Your task to perform on an android device: open chrome privacy settings Image 0: 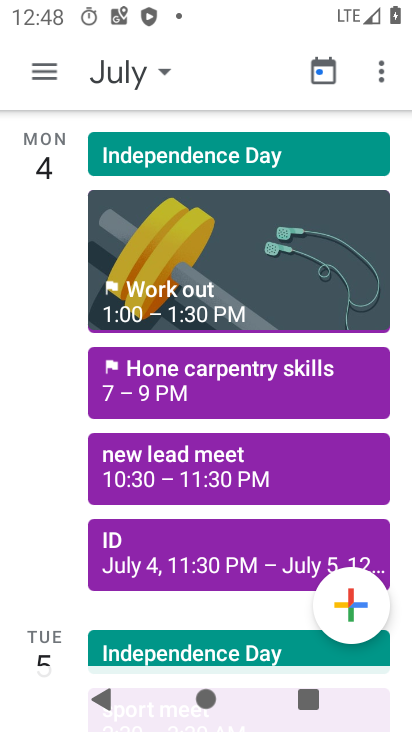
Step 0: press home button
Your task to perform on an android device: open chrome privacy settings Image 1: 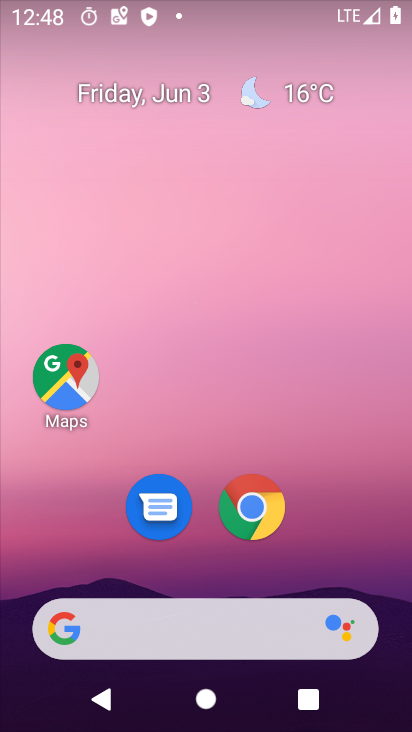
Step 1: drag from (400, 629) to (339, 82)
Your task to perform on an android device: open chrome privacy settings Image 2: 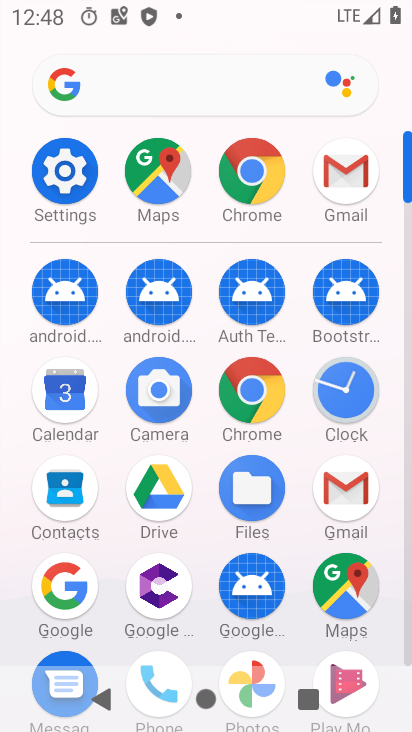
Step 2: click (255, 388)
Your task to perform on an android device: open chrome privacy settings Image 3: 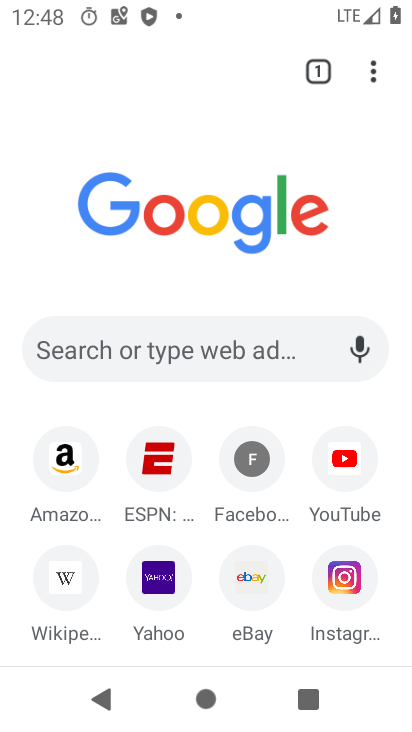
Step 3: click (373, 63)
Your task to perform on an android device: open chrome privacy settings Image 4: 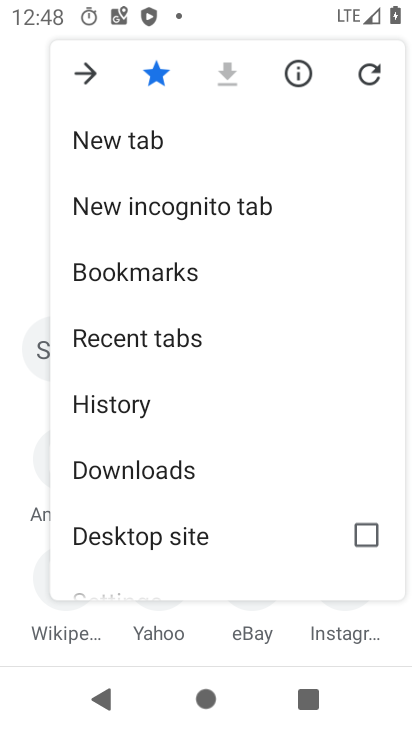
Step 4: drag from (150, 533) to (190, 185)
Your task to perform on an android device: open chrome privacy settings Image 5: 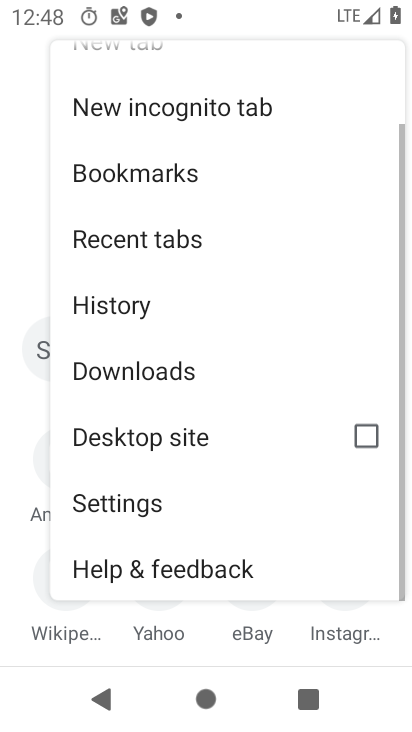
Step 5: click (163, 499)
Your task to perform on an android device: open chrome privacy settings Image 6: 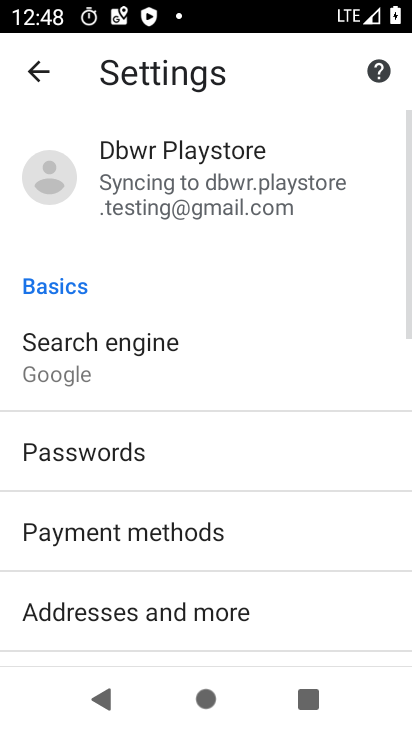
Step 6: drag from (193, 569) to (224, 185)
Your task to perform on an android device: open chrome privacy settings Image 7: 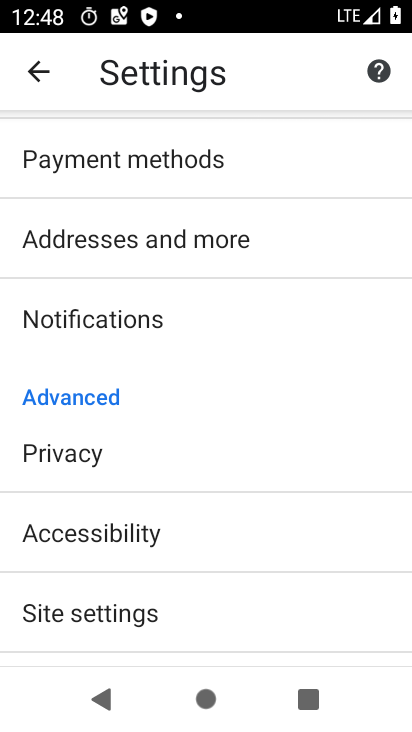
Step 7: click (119, 449)
Your task to perform on an android device: open chrome privacy settings Image 8: 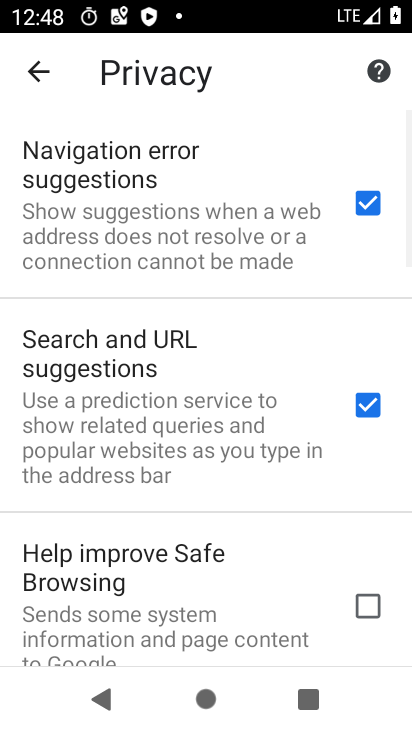
Step 8: task complete